Your task to perform on an android device: Go to calendar. Show me events next week Image 0: 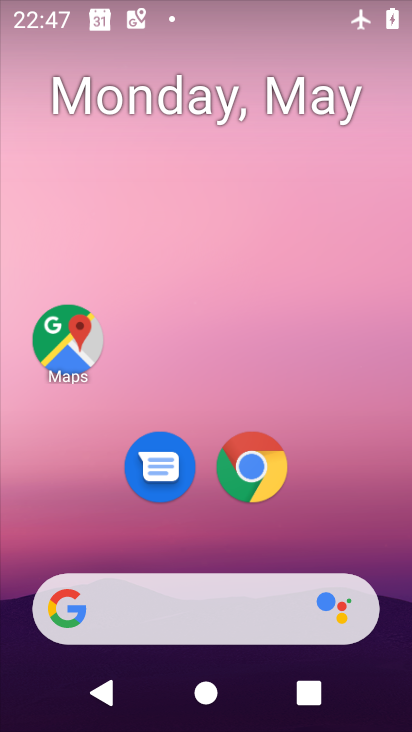
Step 0: drag from (310, 519) to (319, 226)
Your task to perform on an android device: Go to calendar. Show me events next week Image 1: 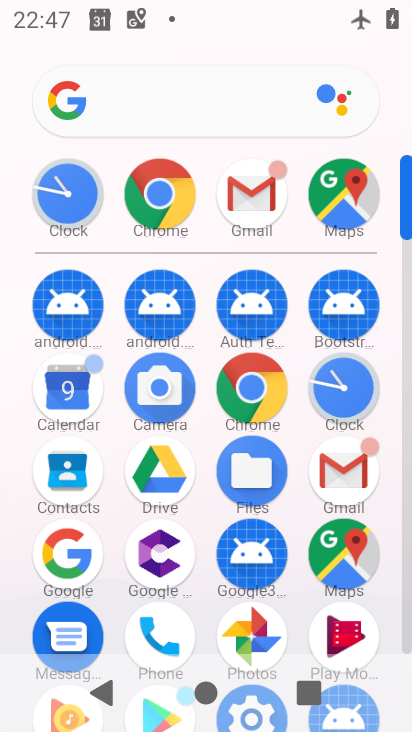
Step 1: click (71, 366)
Your task to perform on an android device: Go to calendar. Show me events next week Image 2: 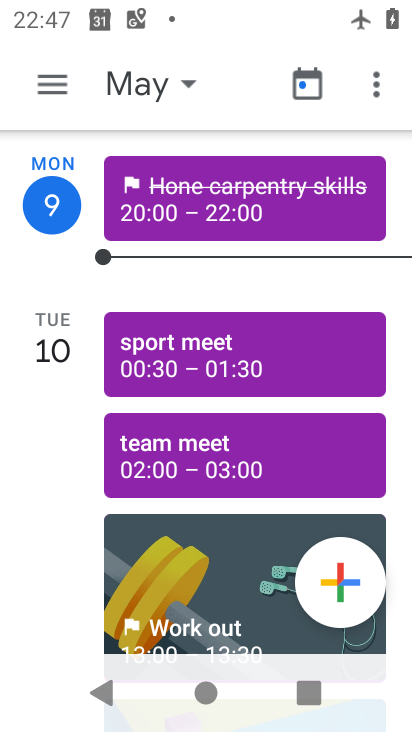
Step 2: click (44, 66)
Your task to perform on an android device: Go to calendar. Show me events next week Image 3: 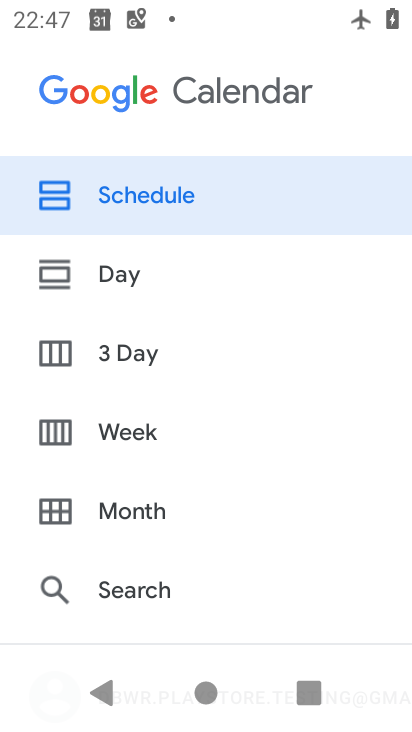
Step 3: click (114, 511)
Your task to perform on an android device: Go to calendar. Show me events next week Image 4: 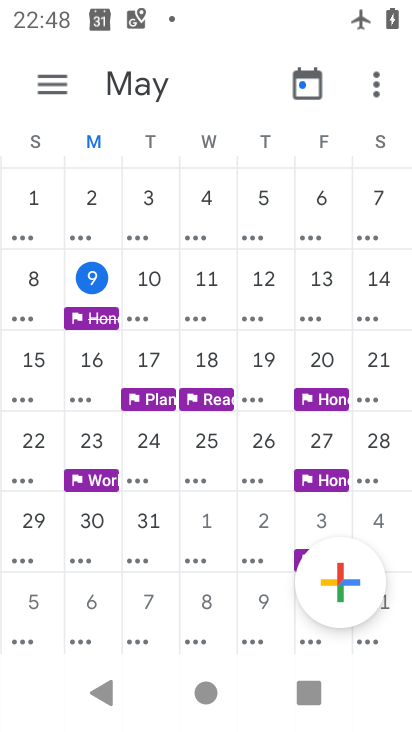
Step 4: task complete